Your task to perform on an android device: toggle wifi Image 0: 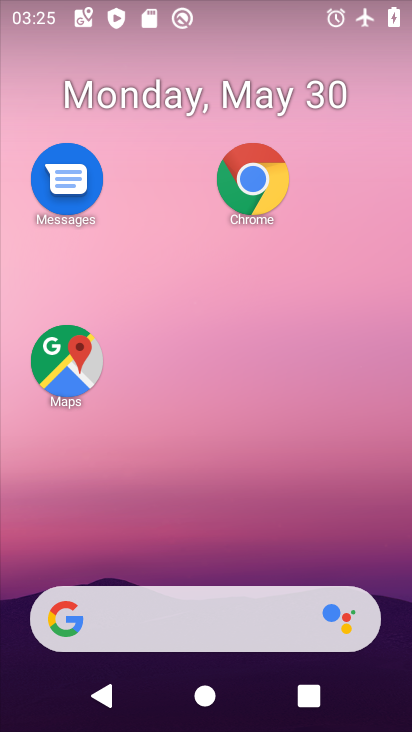
Step 0: drag from (180, 540) to (225, 1)
Your task to perform on an android device: toggle wifi Image 1: 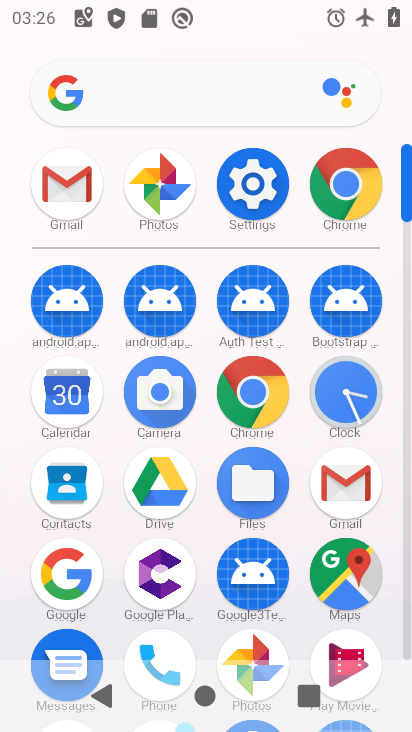
Step 1: click (244, 187)
Your task to perform on an android device: toggle wifi Image 2: 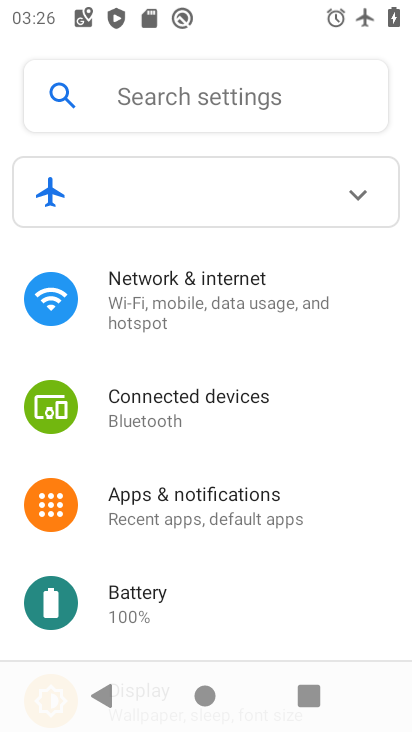
Step 2: click (150, 310)
Your task to perform on an android device: toggle wifi Image 3: 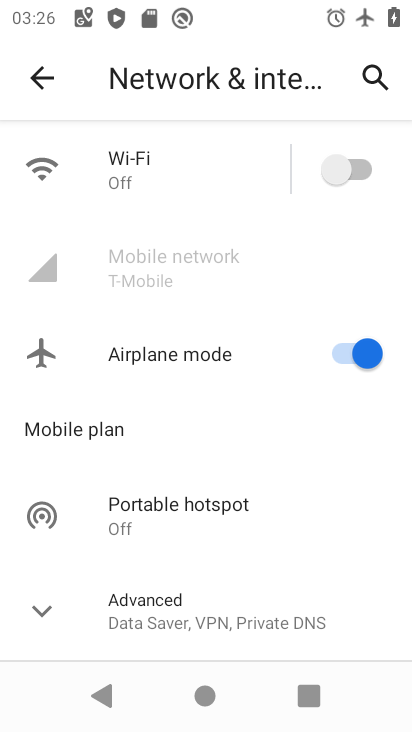
Step 3: click (359, 164)
Your task to perform on an android device: toggle wifi Image 4: 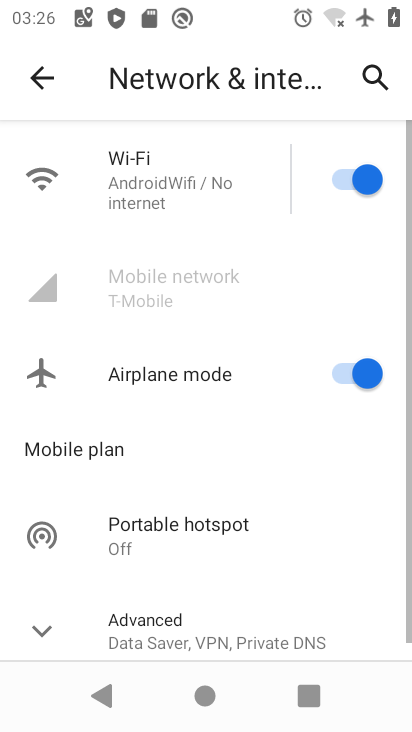
Step 4: task complete